Your task to perform on an android device: turn on bluetooth scan Image 0: 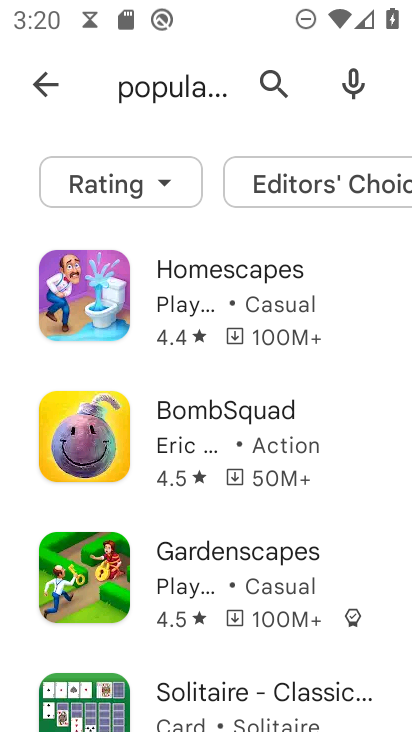
Step 0: press home button
Your task to perform on an android device: turn on bluetooth scan Image 1: 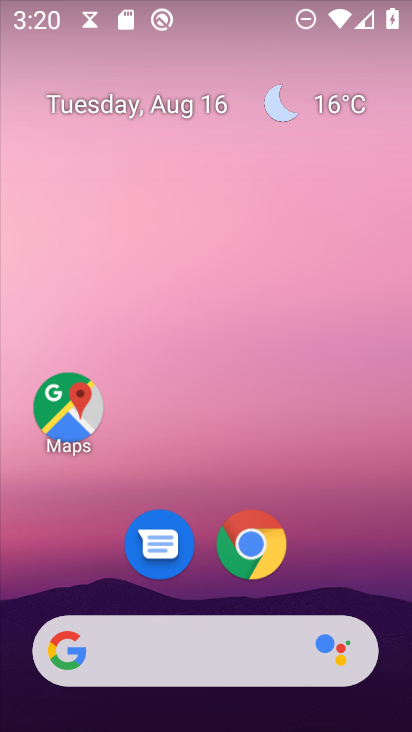
Step 1: drag from (201, 652) to (252, 156)
Your task to perform on an android device: turn on bluetooth scan Image 2: 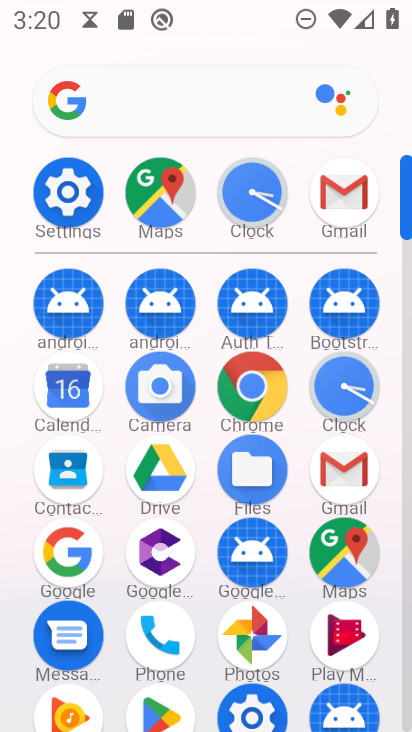
Step 2: click (67, 194)
Your task to perform on an android device: turn on bluetooth scan Image 3: 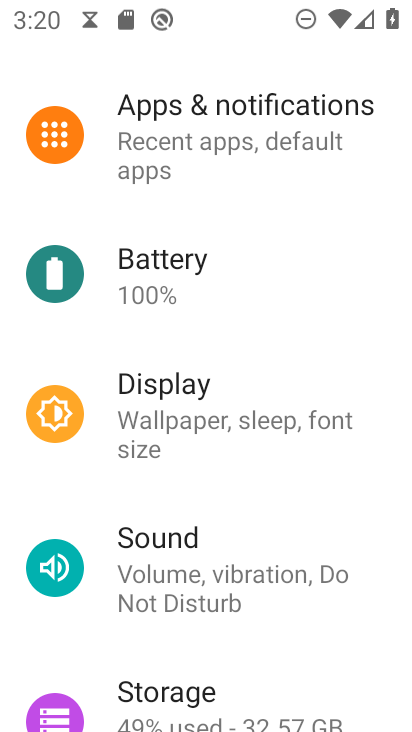
Step 3: drag from (218, 498) to (278, 399)
Your task to perform on an android device: turn on bluetooth scan Image 4: 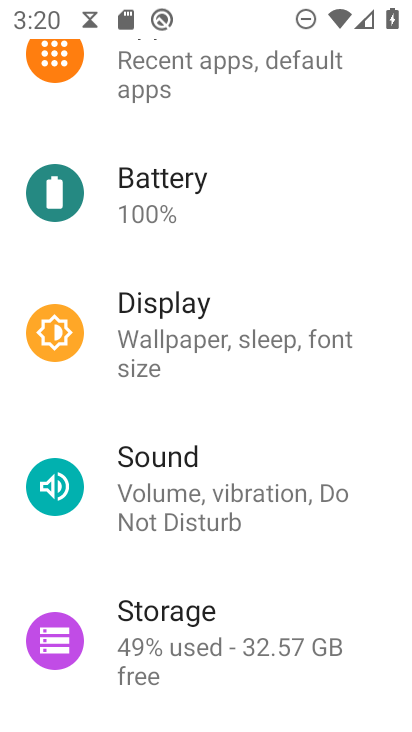
Step 4: drag from (236, 563) to (276, 439)
Your task to perform on an android device: turn on bluetooth scan Image 5: 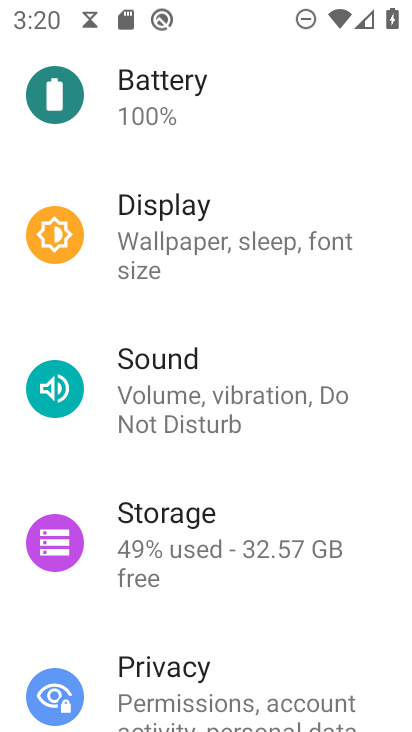
Step 5: drag from (194, 596) to (229, 464)
Your task to perform on an android device: turn on bluetooth scan Image 6: 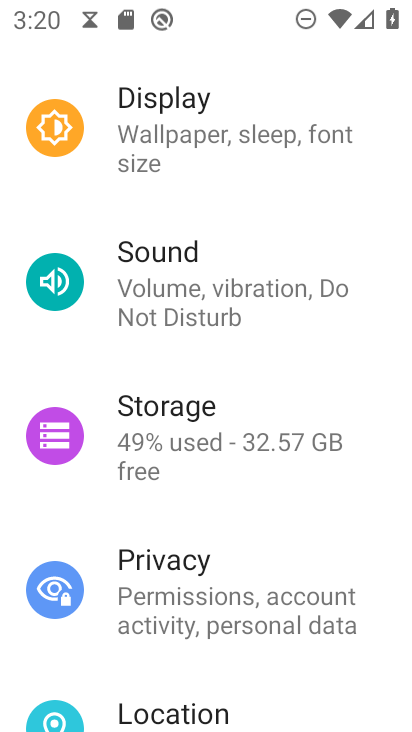
Step 6: drag from (219, 506) to (263, 349)
Your task to perform on an android device: turn on bluetooth scan Image 7: 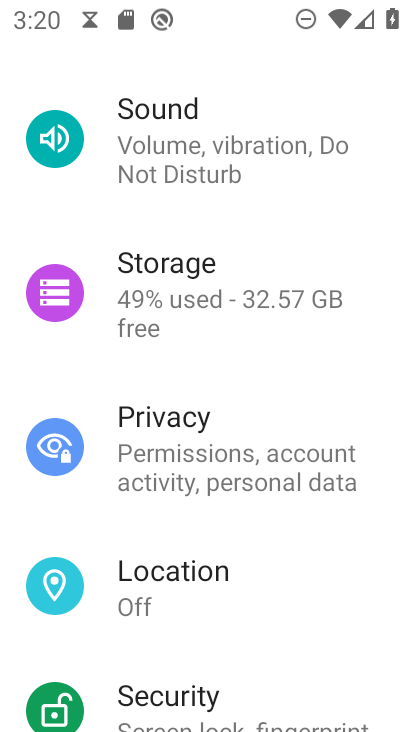
Step 7: drag from (195, 550) to (316, 379)
Your task to perform on an android device: turn on bluetooth scan Image 8: 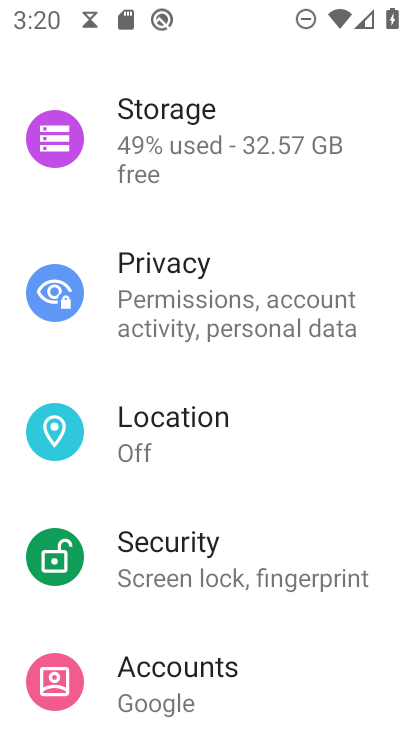
Step 8: click (189, 427)
Your task to perform on an android device: turn on bluetooth scan Image 9: 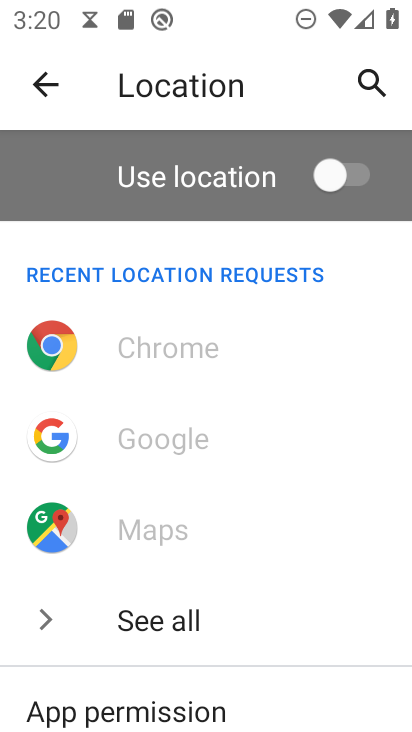
Step 9: drag from (245, 704) to (327, 422)
Your task to perform on an android device: turn on bluetooth scan Image 10: 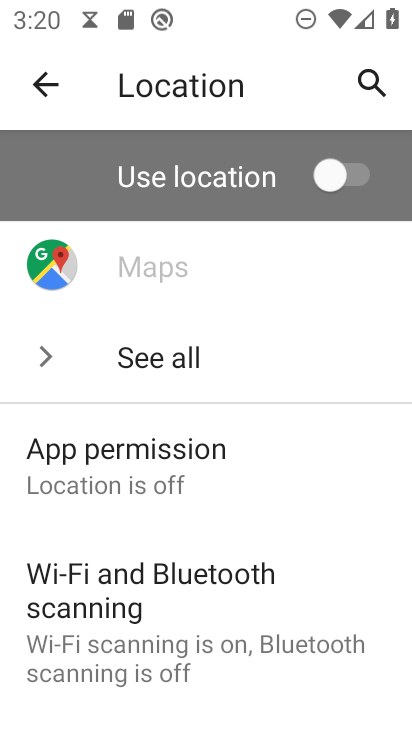
Step 10: click (214, 586)
Your task to perform on an android device: turn on bluetooth scan Image 11: 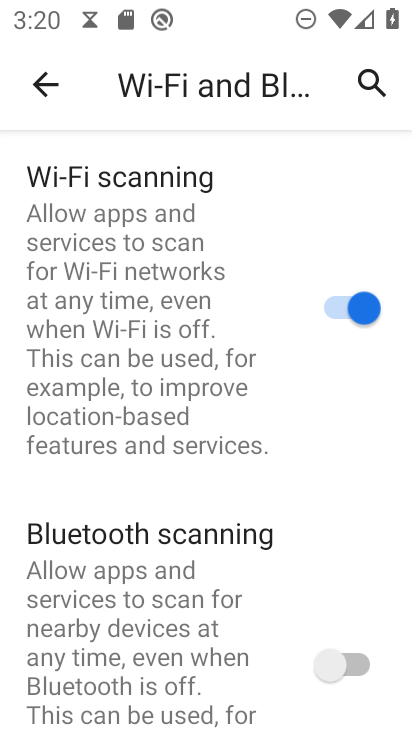
Step 11: click (342, 666)
Your task to perform on an android device: turn on bluetooth scan Image 12: 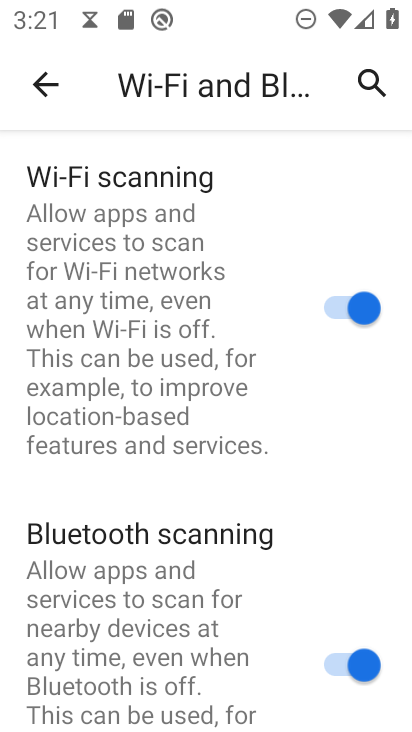
Step 12: task complete